Your task to perform on an android device: turn on the 24-hour format for clock Image 0: 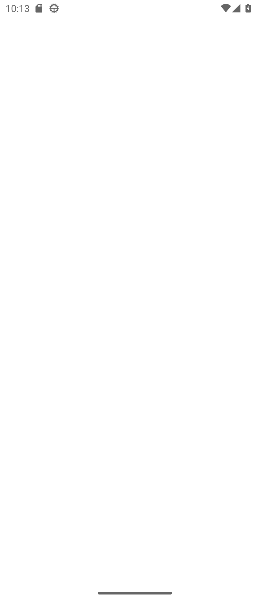
Step 0: press home button
Your task to perform on an android device: turn on the 24-hour format for clock Image 1: 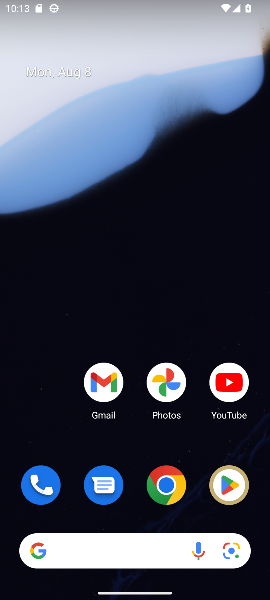
Step 1: drag from (205, 464) to (189, 80)
Your task to perform on an android device: turn on the 24-hour format for clock Image 2: 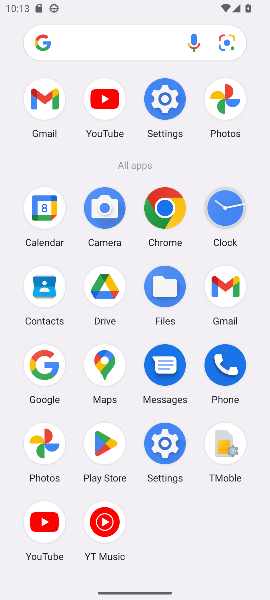
Step 2: click (232, 202)
Your task to perform on an android device: turn on the 24-hour format for clock Image 3: 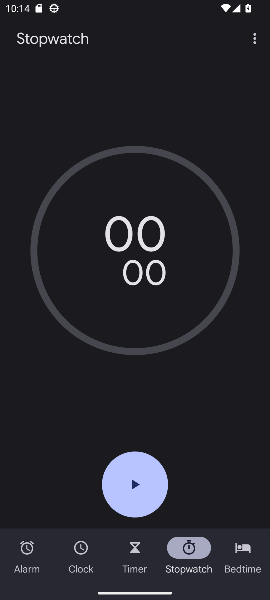
Step 3: click (251, 35)
Your task to perform on an android device: turn on the 24-hour format for clock Image 4: 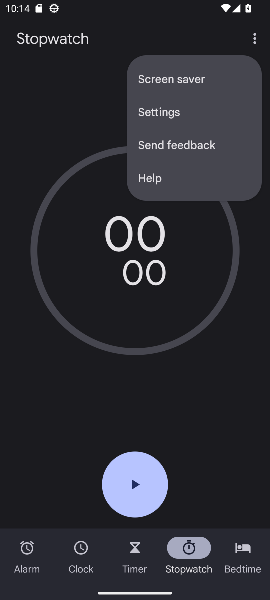
Step 4: click (165, 110)
Your task to perform on an android device: turn on the 24-hour format for clock Image 5: 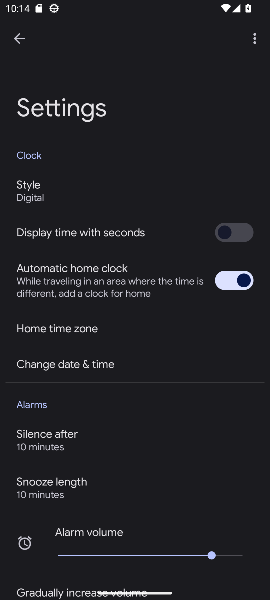
Step 5: drag from (152, 447) to (180, 134)
Your task to perform on an android device: turn on the 24-hour format for clock Image 6: 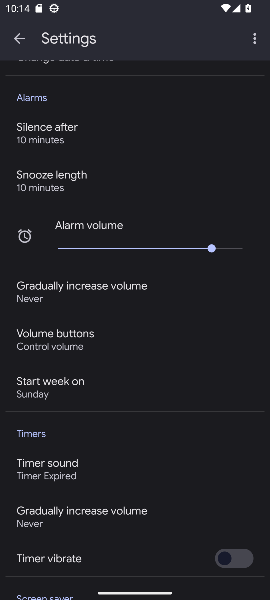
Step 6: drag from (122, 454) to (134, 237)
Your task to perform on an android device: turn on the 24-hour format for clock Image 7: 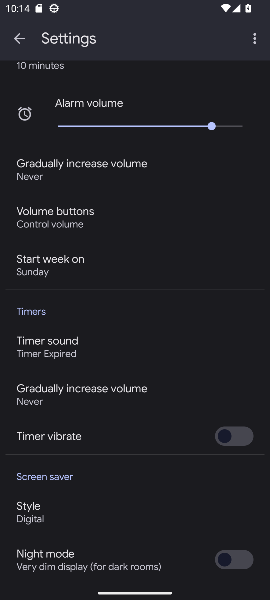
Step 7: drag from (128, 519) to (159, 100)
Your task to perform on an android device: turn on the 24-hour format for clock Image 8: 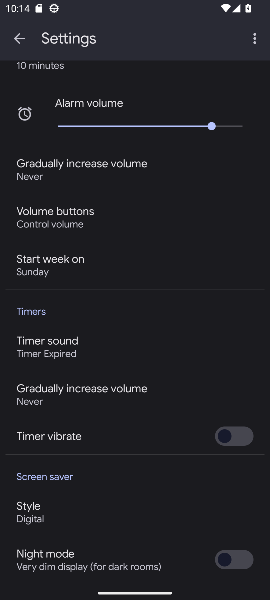
Step 8: drag from (111, 258) to (80, 570)
Your task to perform on an android device: turn on the 24-hour format for clock Image 9: 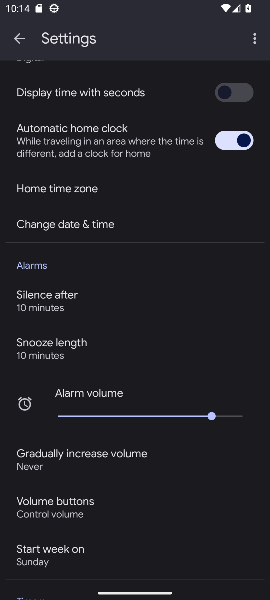
Step 9: click (98, 227)
Your task to perform on an android device: turn on the 24-hour format for clock Image 10: 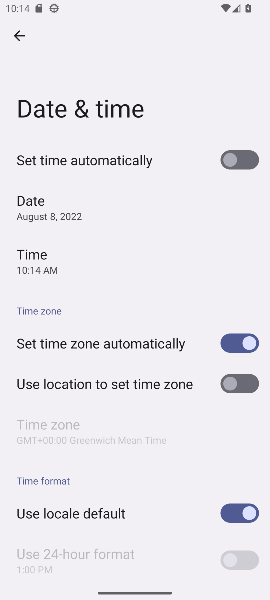
Step 10: drag from (141, 507) to (180, 197)
Your task to perform on an android device: turn on the 24-hour format for clock Image 11: 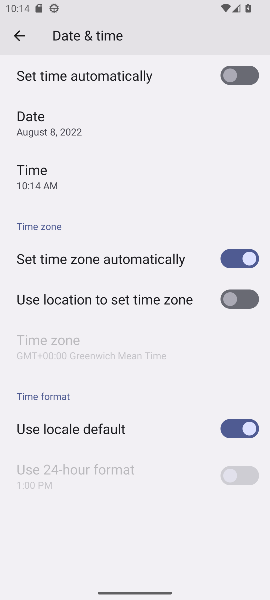
Step 11: click (236, 432)
Your task to perform on an android device: turn on the 24-hour format for clock Image 12: 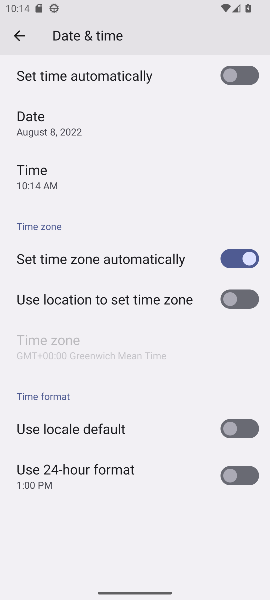
Step 12: click (245, 474)
Your task to perform on an android device: turn on the 24-hour format for clock Image 13: 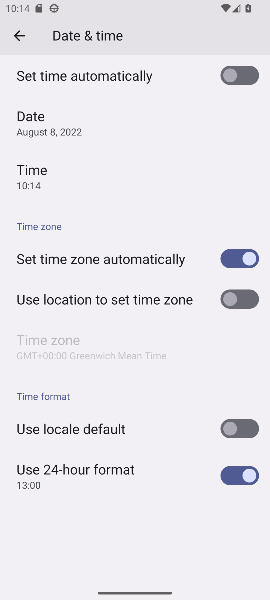
Step 13: task complete